Your task to perform on an android device: empty trash in google photos Image 0: 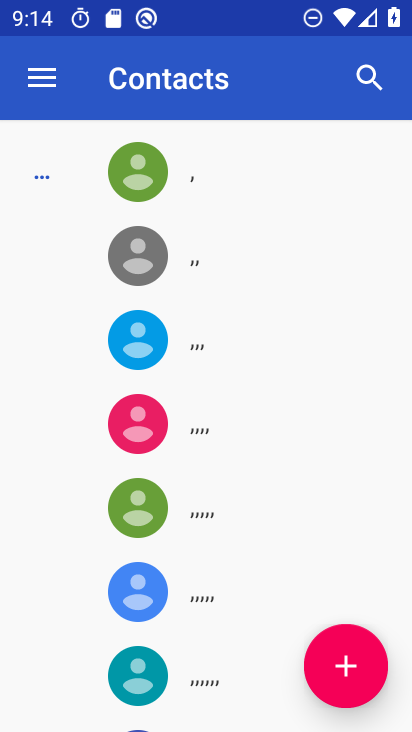
Step 0: press home button
Your task to perform on an android device: empty trash in google photos Image 1: 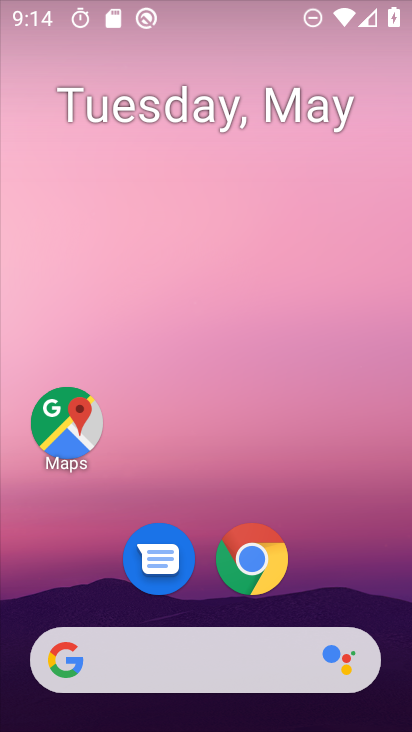
Step 1: drag from (394, 663) to (206, 36)
Your task to perform on an android device: empty trash in google photos Image 2: 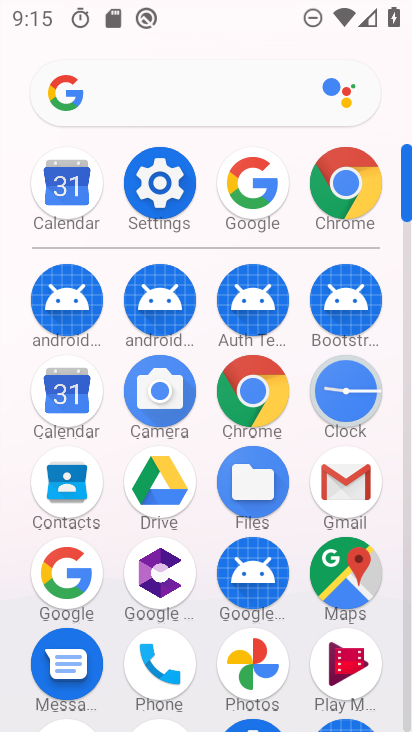
Step 2: click (233, 660)
Your task to perform on an android device: empty trash in google photos Image 3: 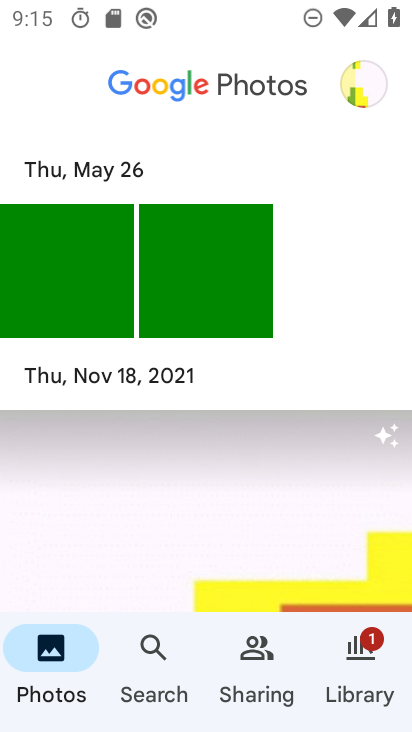
Step 3: click (373, 655)
Your task to perform on an android device: empty trash in google photos Image 4: 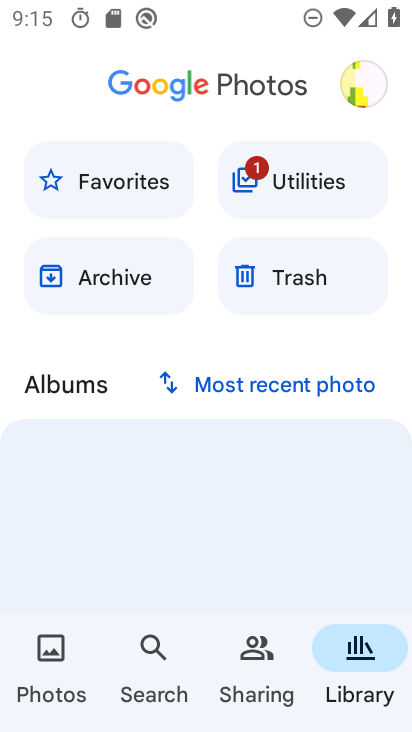
Step 4: click (286, 272)
Your task to perform on an android device: empty trash in google photos Image 5: 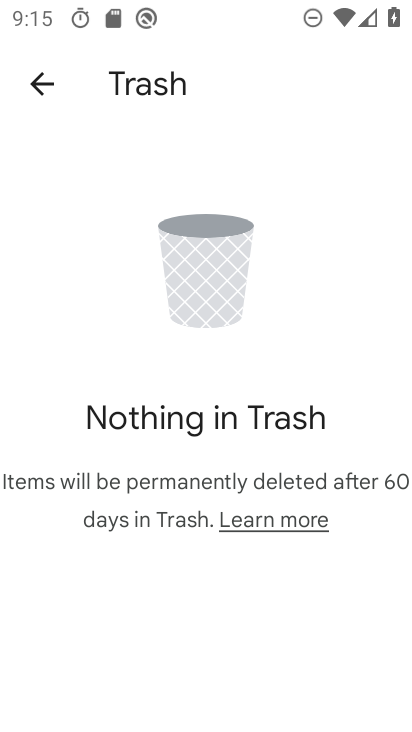
Step 5: task complete